Your task to perform on an android device: check out phone information Image 0: 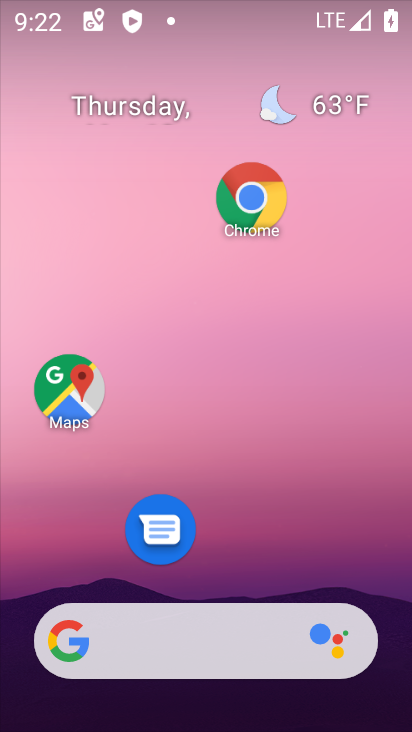
Step 0: drag from (243, 573) to (252, 0)
Your task to perform on an android device: check out phone information Image 1: 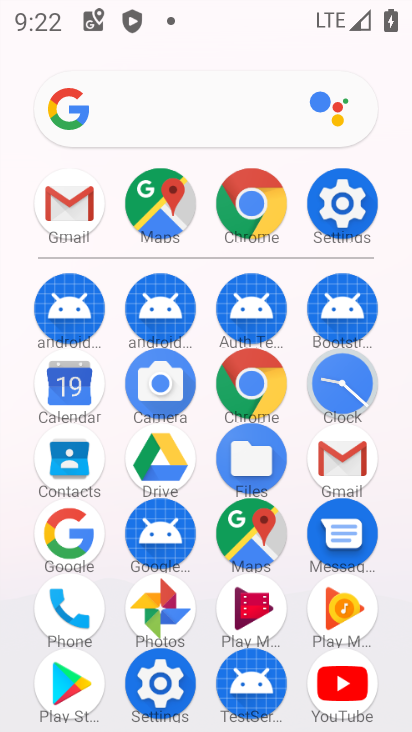
Step 1: click (350, 214)
Your task to perform on an android device: check out phone information Image 2: 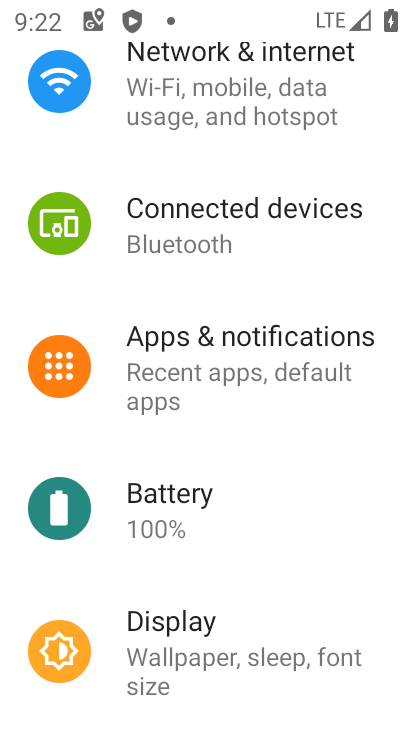
Step 2: drag from (186, 498) to (237, 80)
Your task to perform on an android device: check out phone information Image 3: 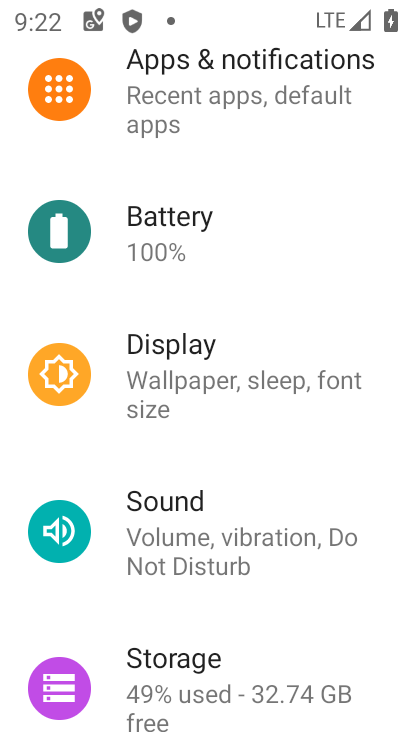
Step 3: drag from (224, 536) to (266, 281)
Your task to perform on an android device: check out phone information Image 4: 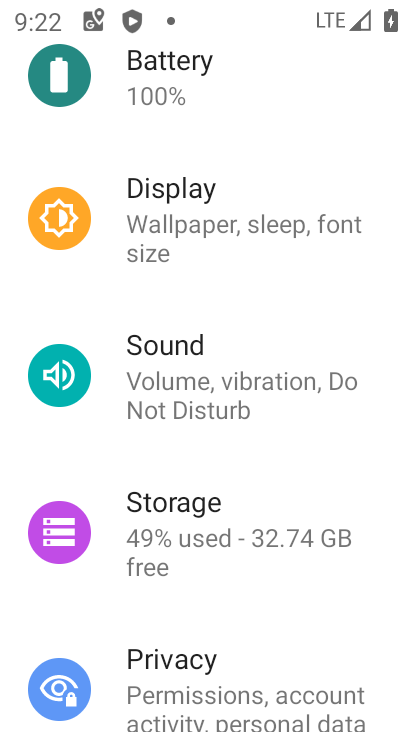
Step 4: drag from (227, 671) to (266, 305)
Your task to perform on an android device: check out phone information Image 5: 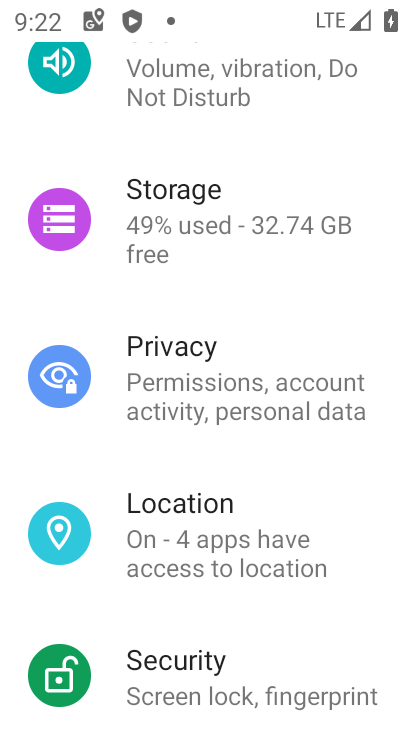
Step 5: drag from (232, 588) to (219, 238)
Your task to perform on an android device: check out phone information Image 6: 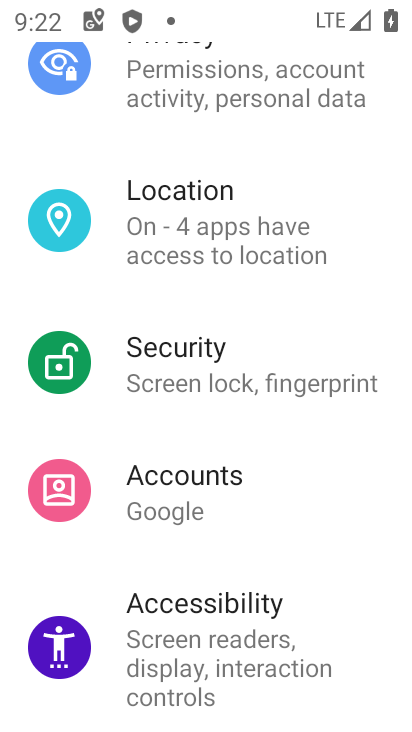
Step 6: drag from (227, 565) to (219, 13)
Your task to perform on an android device: check out phone information Image 7: 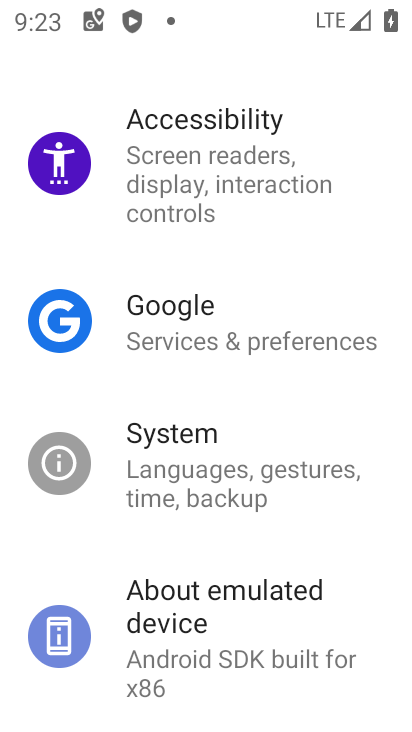
Step 7: drag from (208, 494) to (398, 59)
Your task to perform on an android device: check out phone information Image 8: 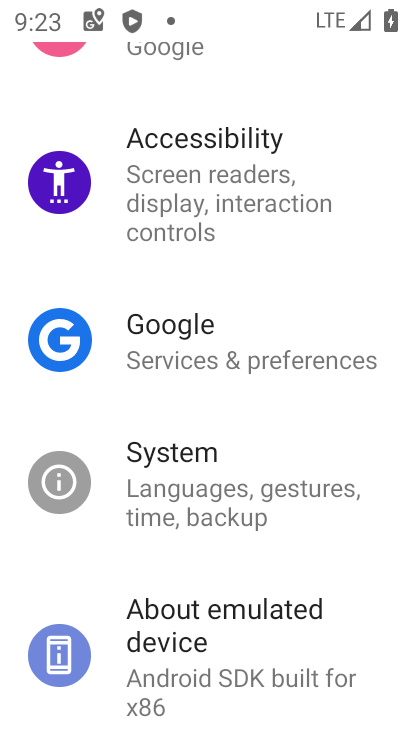
Step 8: drag from (290, 635) to (278, 192)
Your task to perform on an android device: check out phone information Image 9: 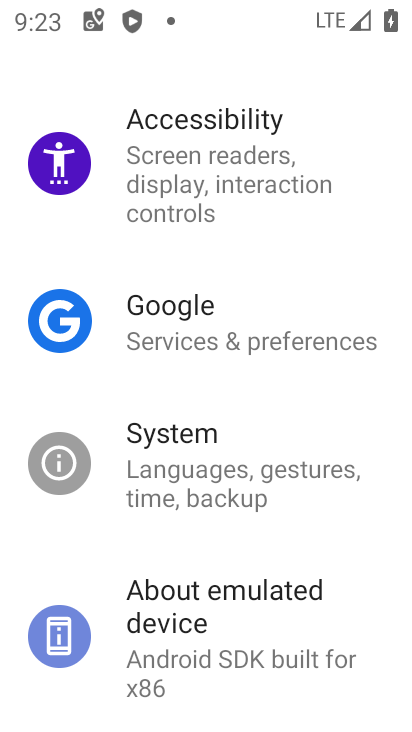
Step 9: click (196, 666)
Your task to perform on an android device: check out phone information Image 10: 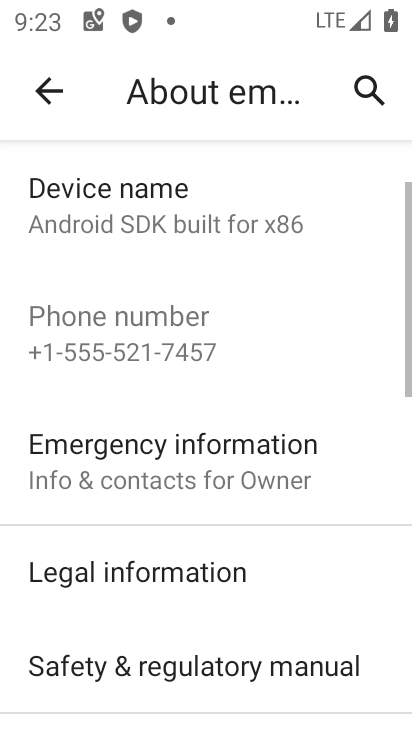
Step 10: task complete